Your task to perform on an android device: find snoozed emails in the gmail app Image 0: 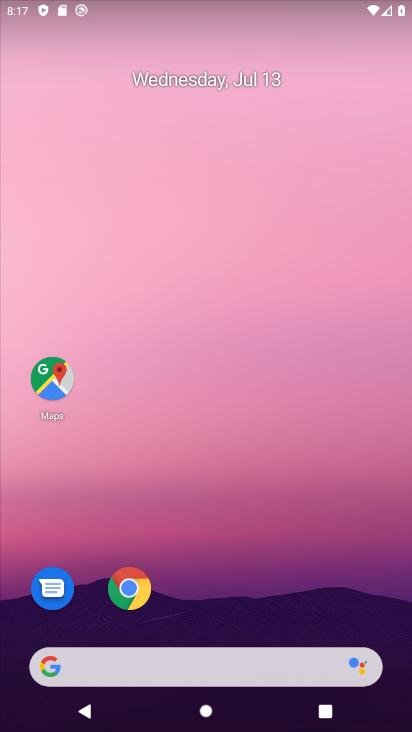
Step 0: drag from (326, 633) to (202, 256)
Your task to perform on an android device: find snoozed emails in the gmail app Image 1: 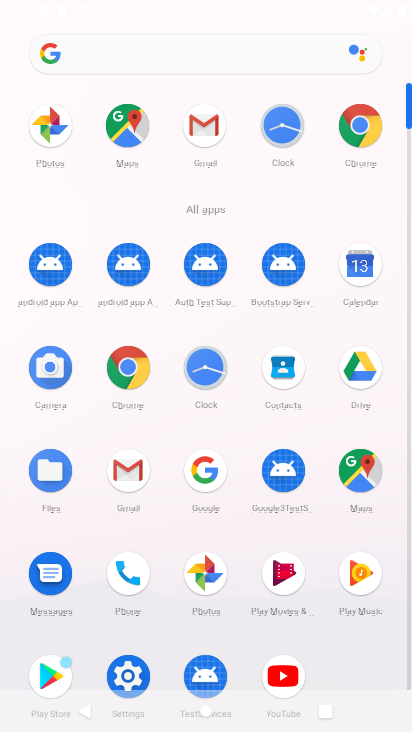
Step 1: click (207, 131)
Your task to perform on an android device: find snoozed emails in the gmail app Image 2: 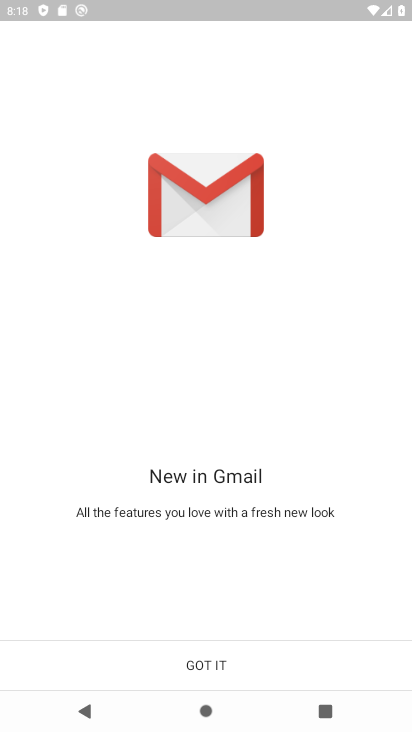
Step 2: click (237, 669)
Your task to perform on an android device: find snoozed emails in the gmail app Image 3: 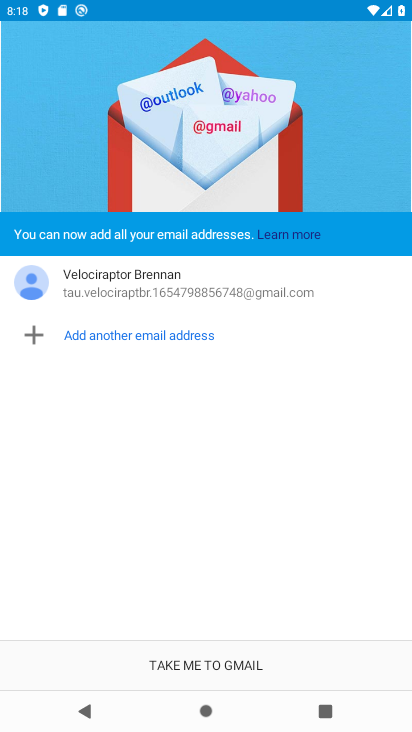
Step 3: click (237, 669)
Your task to perform on an android device: find snoozed emails in the gmail app Image 4: 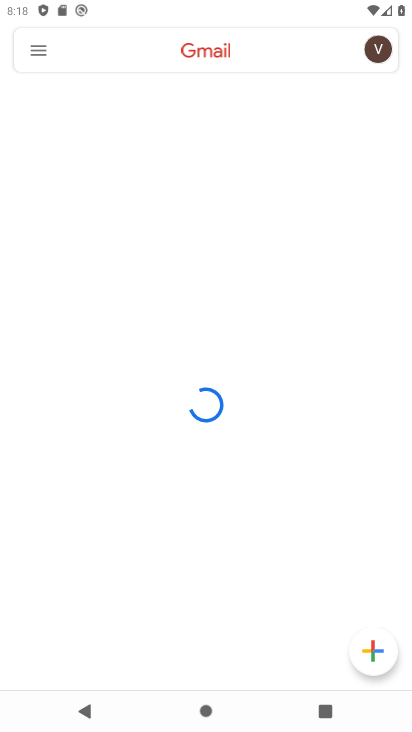
Step 4: click (37, 55)
Your task to perform on an android device: find snoozed emails in the gmail app Image 5: 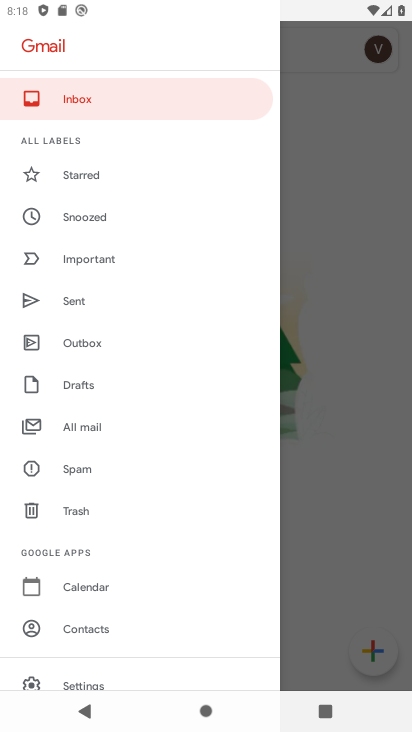
Step 5: click (94, 224)
Your task to perform on an android device: find snoozed emails in the gmail app Image 6: 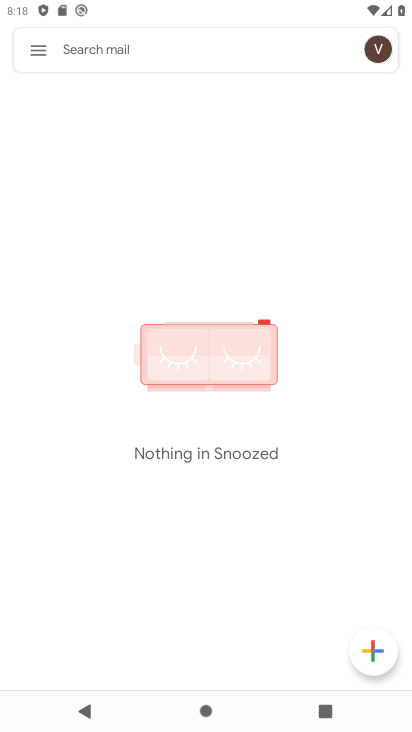
Step 6: task complete